Your task to perform on an android device: snooze an email in the gmail app Image 0: 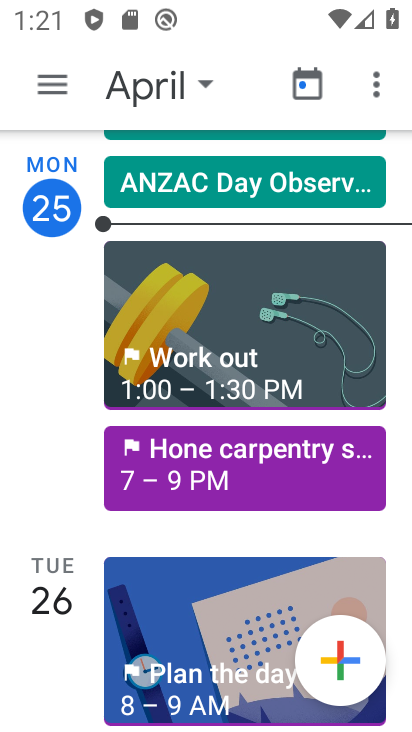
Step 0: press home button
Your task to perform on an android device: snooze an email in the gmail app Image 1: 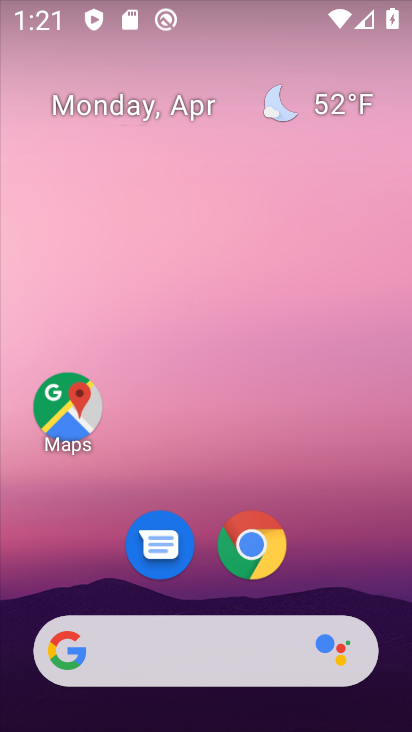
Step 1: drag from (220, 660) to (181, 112)
Your task to perform on an android device: snooze an email in the gmail app Image 2: 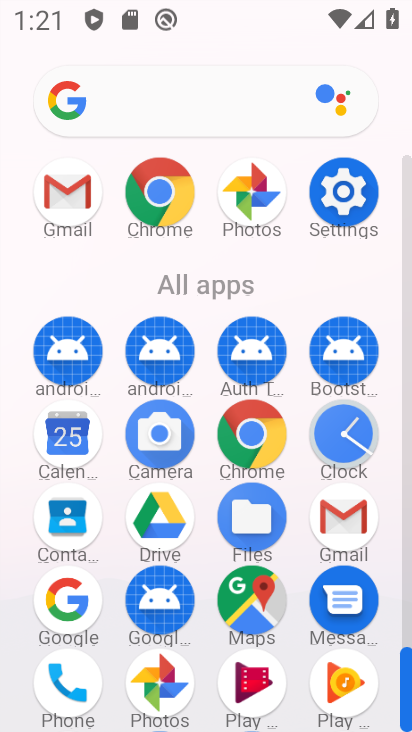
Step 2: click (66, 185)
Your task to perform on an android device: snooze an email in the gmail app Image 3: 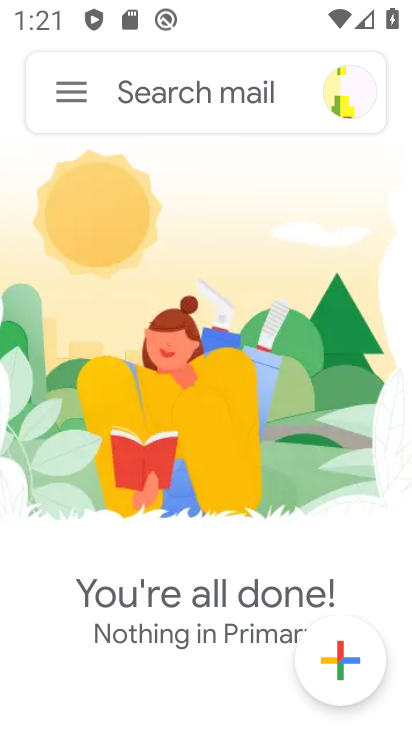
Step 3: task complete